Your task to perform on an android device: Open Reddit.com Image 0: 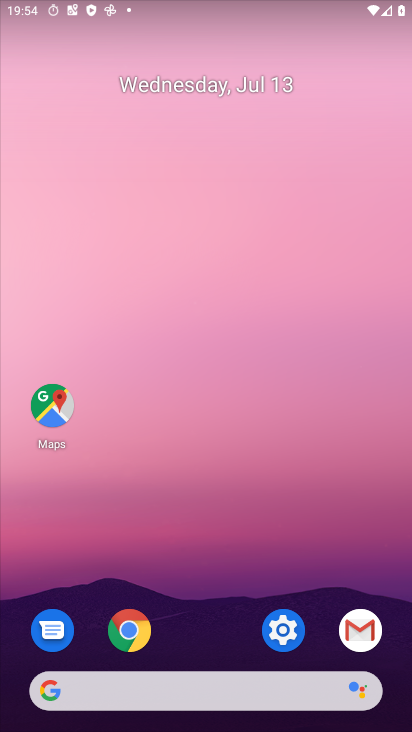
Step 0: click (131, 645)
Your task to perform on an android device: Open Reddit.com Image 1: 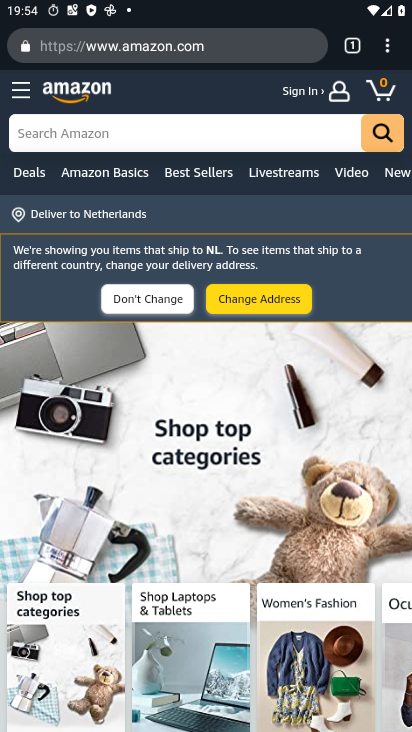
Step 1: click (237, 52)
Your task to perform on an android device: Open Reddit.com Image 2: 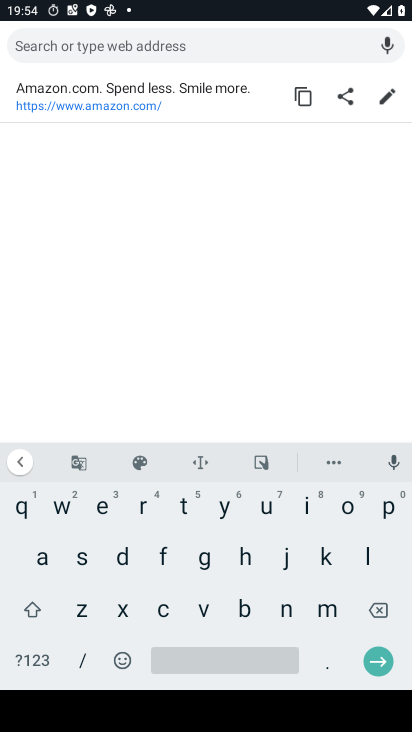
Step 2: click (141, 499)
Your task to perform on an android device: Open Reddit.com Image 3: 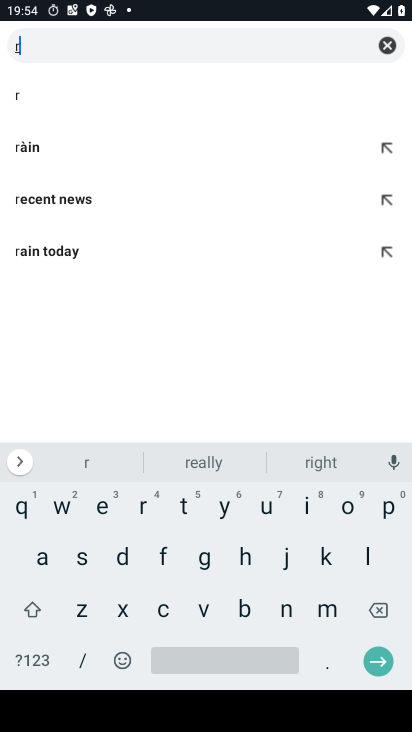
Step 3: click (103, 510)
Your task to perform on an android device: Open Reddit.com Image 4: 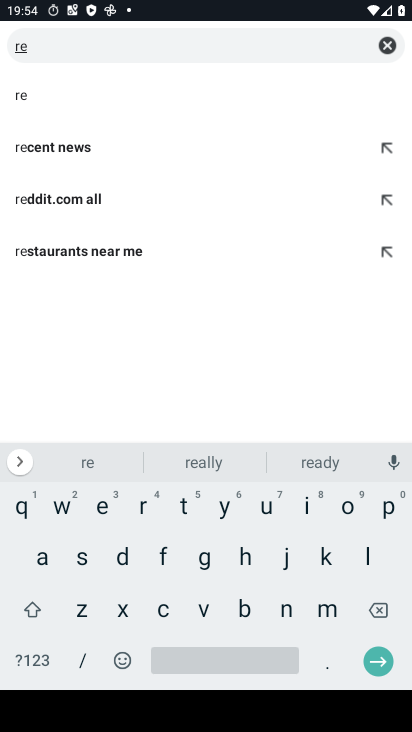
Step 4: click (125, 562)
Your task to perform on an android device: Open Reddit.com Image 5: 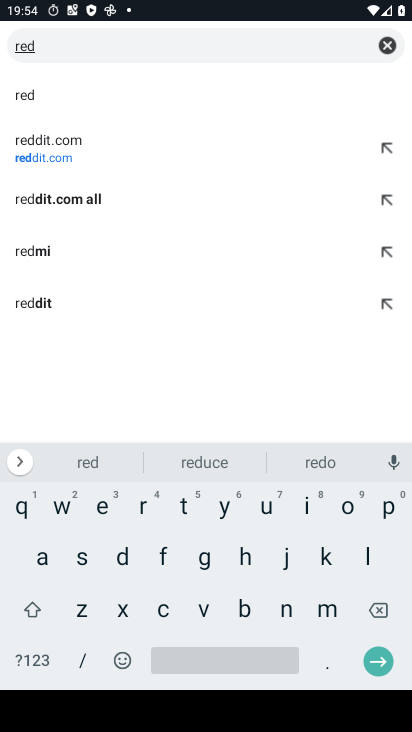
Step 5: click (58, 147)
Your task to perform on an android device: Open Reddit.com Image 6: 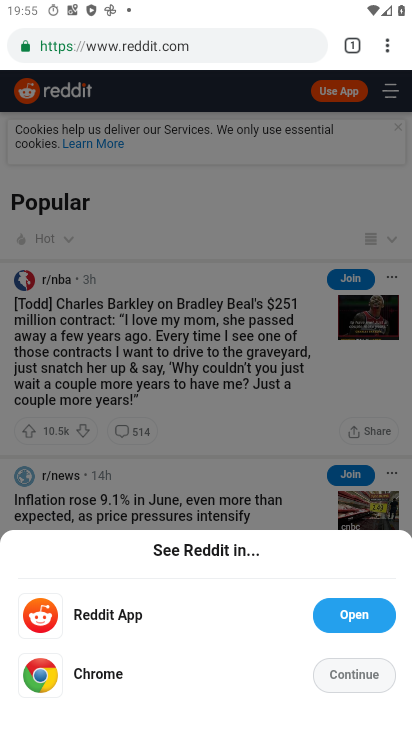
Step 6: click (344, 675)
Your task to perform on an android device: Open Reddit.com Image 7: 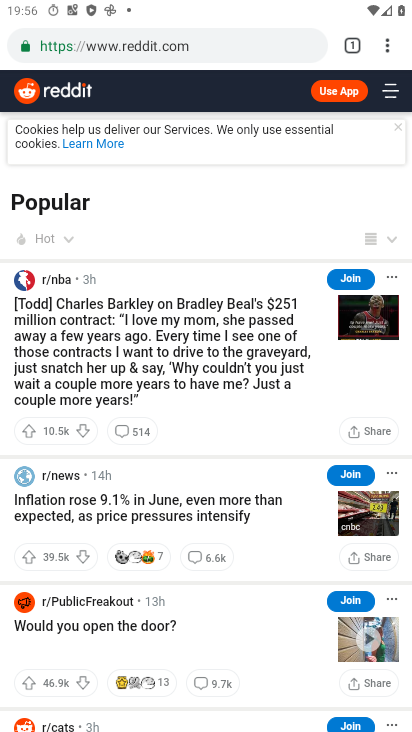
Step 7: task complete